Your task to perform on an android device: check data usage Image 0: 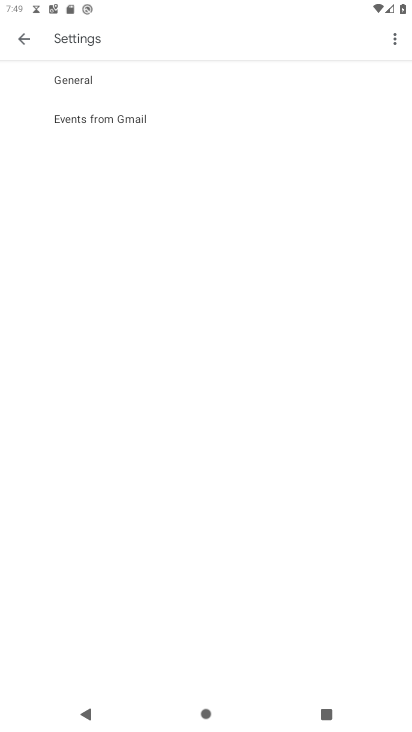
Step 0: press home button
Your task to perform on an android device: check data usage Image 1: 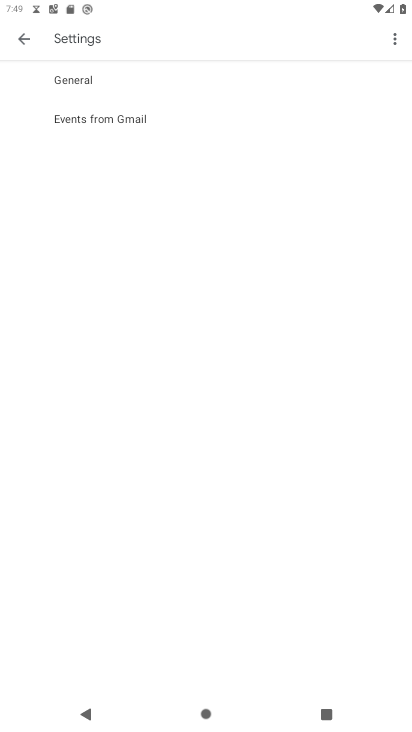
Step 1: press home button
Your task to perform on an android device: check data usage Image 2: 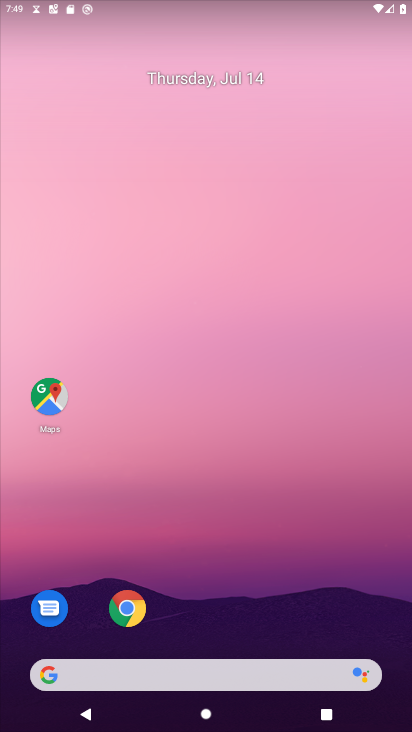
Step 2: drag from (294, 62) to (244, 488)
Your task to perform on an android device: check data usage Image 3: 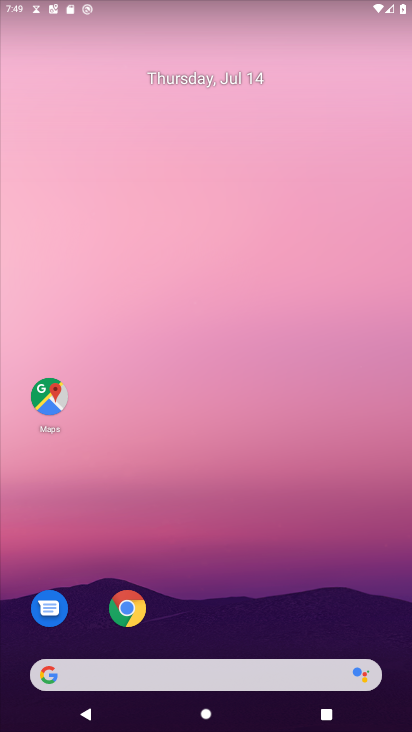
Step 3: click (278, 184)
Your task to perform on an android device: check data usage Image 4: 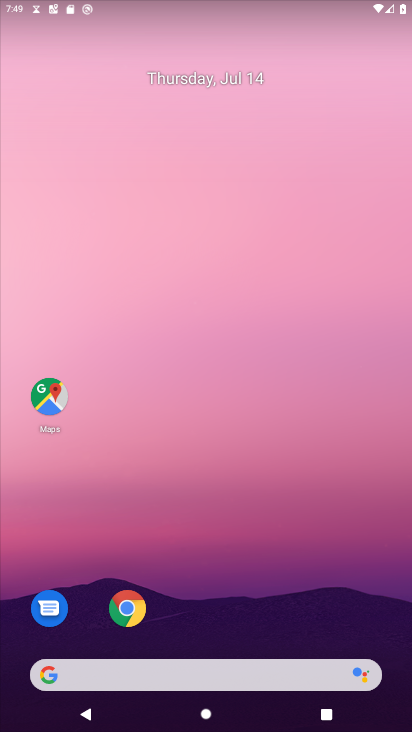
Step 4: drag from (331, 1) to (240, 601)
Your task to perform on an android device: check data usage Image 5: 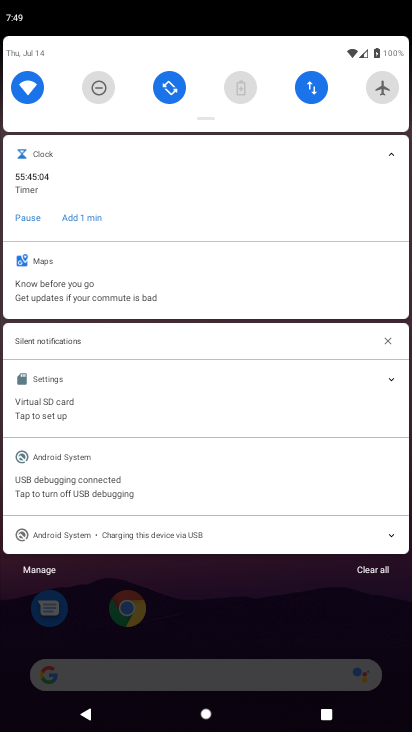
Step 5: drag from (255, 408) to (238, 577)
Your task to perform on an android device: check data usage Image 6: 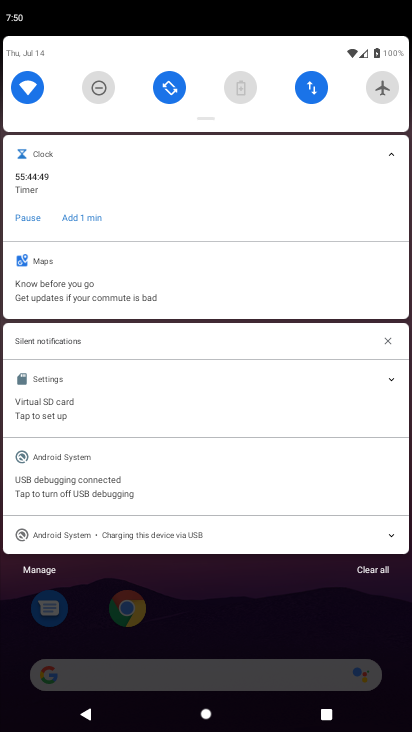
Step 6: click (318, 83)
Your task to perform on an android device: check data usage Image 7: 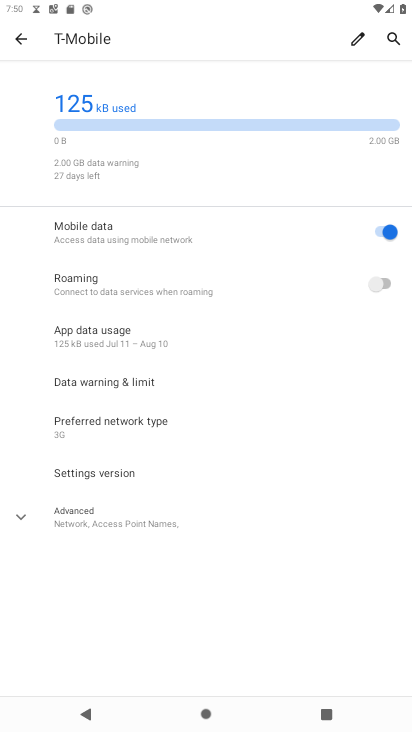
Step 7: task complete